Your task to perform on an android device: star an email in the gmail app Image 0: 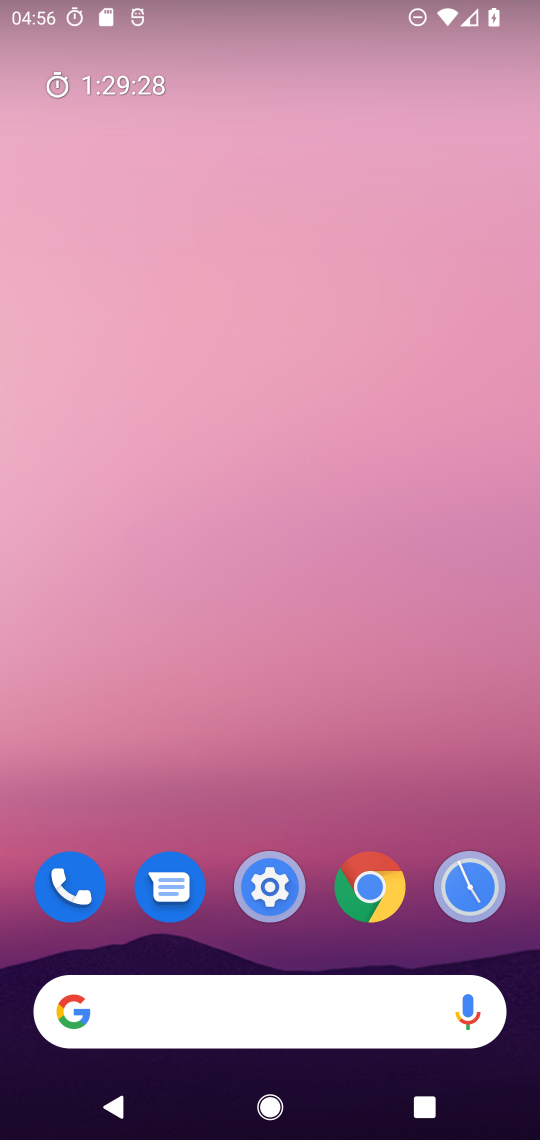
Step 0: press home button
Your task to perform on an android device: star an email in the gmail app Image 1: 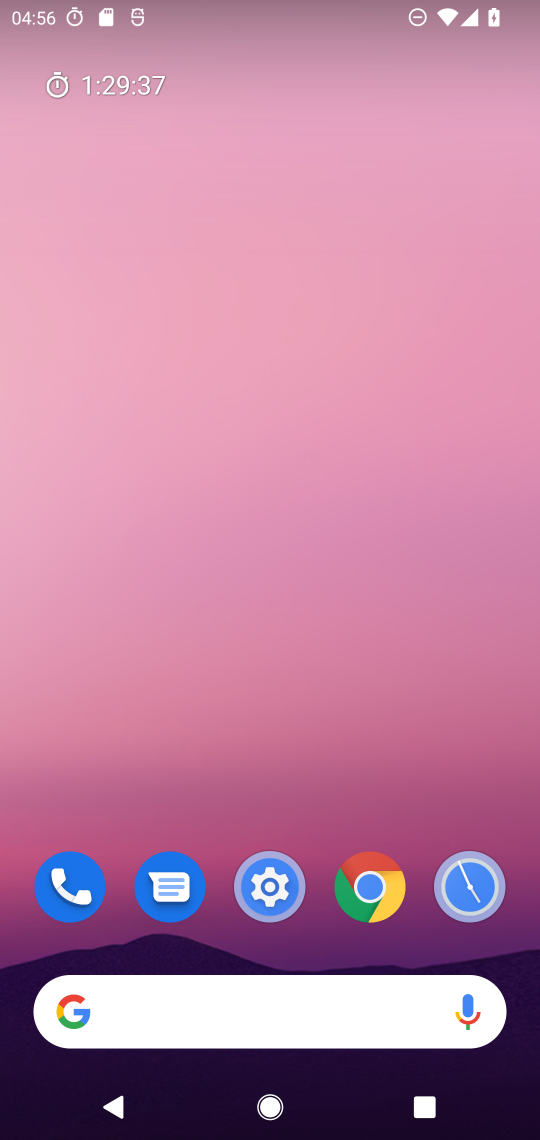
Step 1: drag from (327, 734) to (380, 181)
Your task to perform on an android device: star an email in the gmail app Image 2: 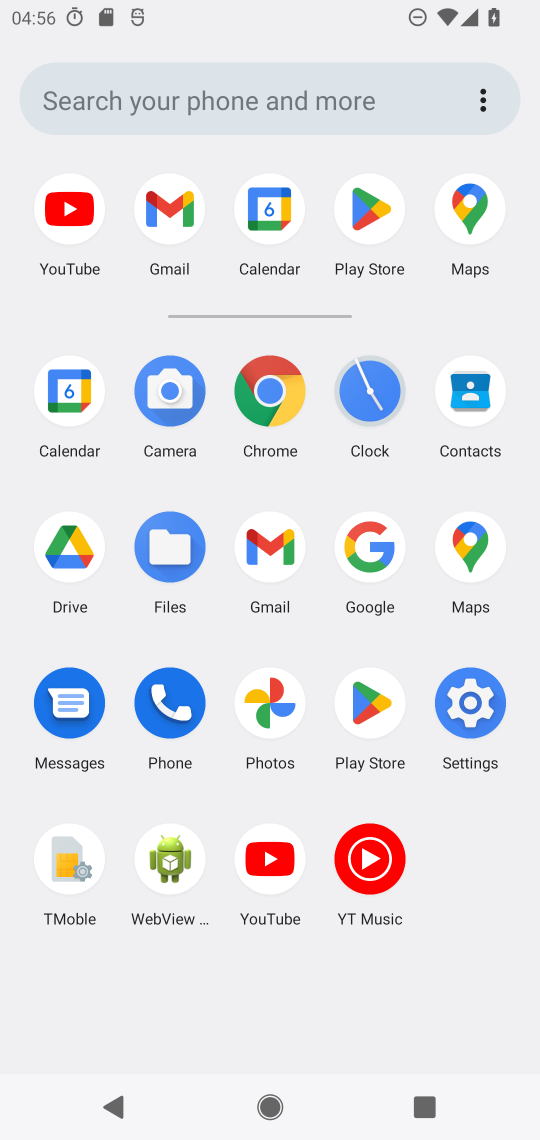
Step 2: click (271, 542)
Your task to perform on an android device: star an email in the gmail app Image 3: 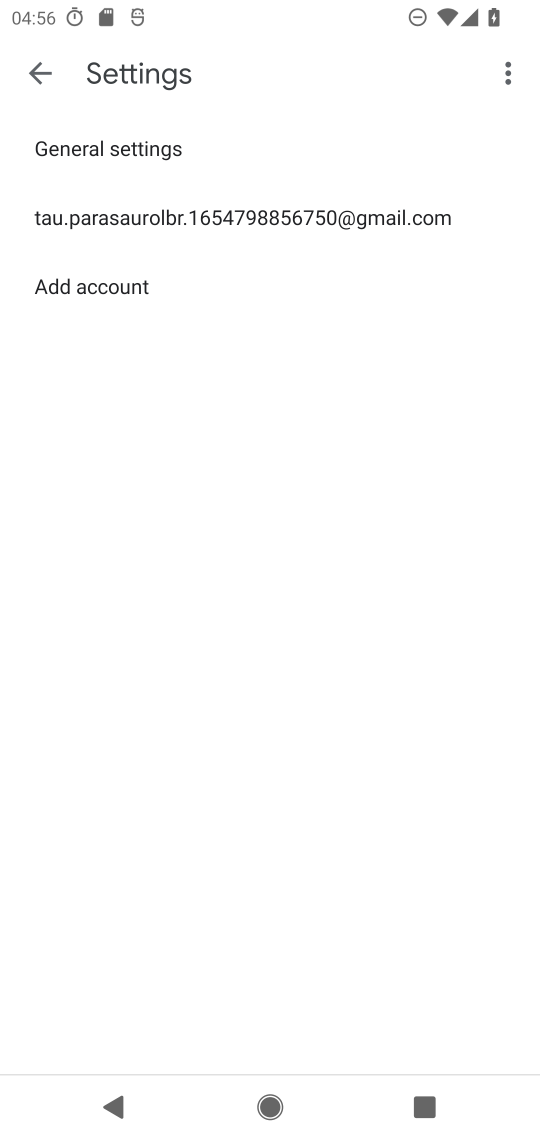
Step 3: press back button
Your task to perform on an android device: star an email in the gmail app Image 4: 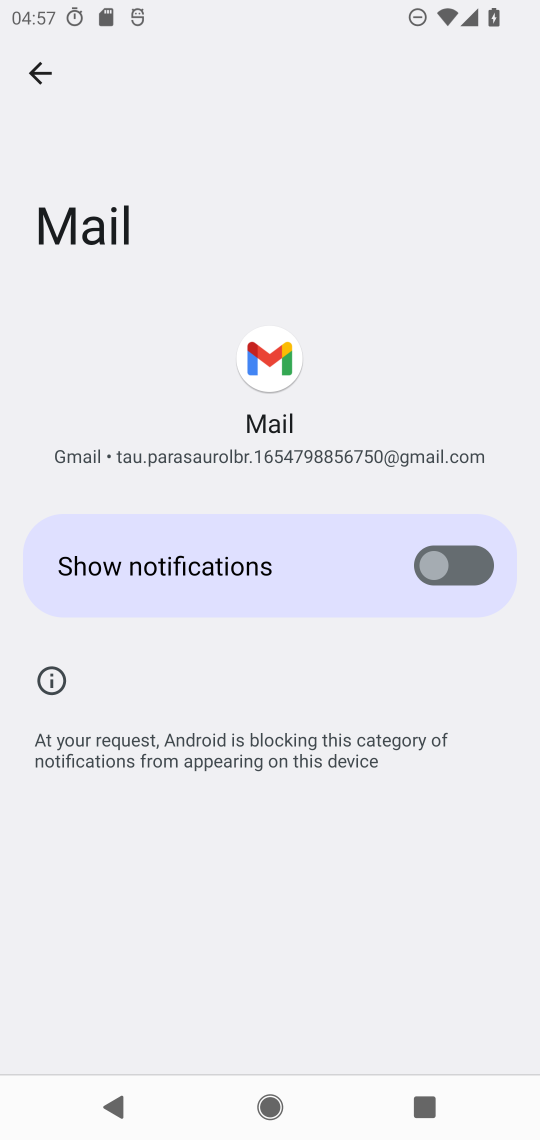
Step 4: press back button
Your task to perform on an android device: star an email in the gmail app Image 5: 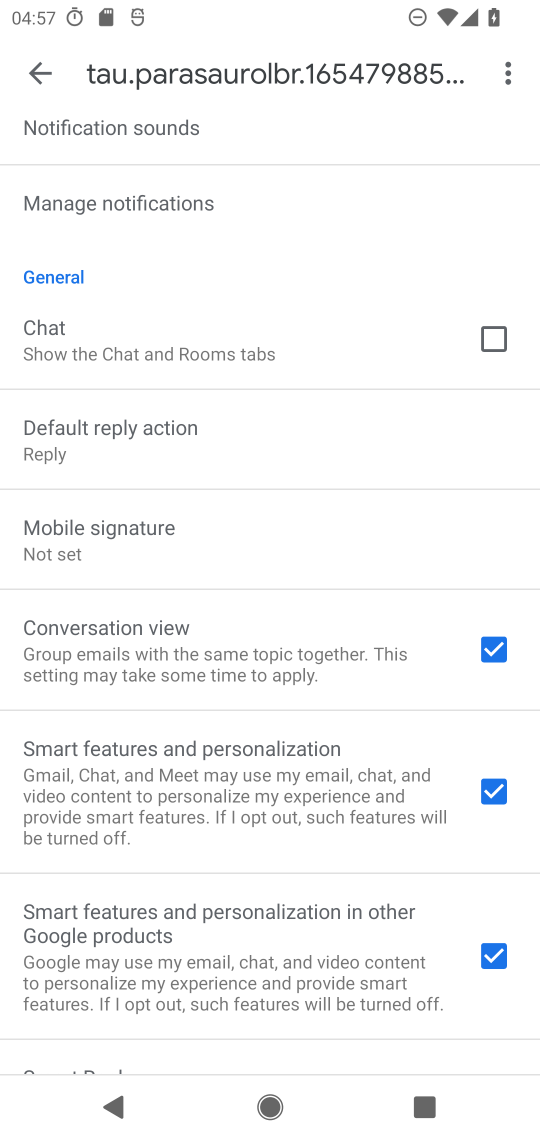
Step 5: press back button
Your task to perform on an android device: star an email in the gmail app Image 6: 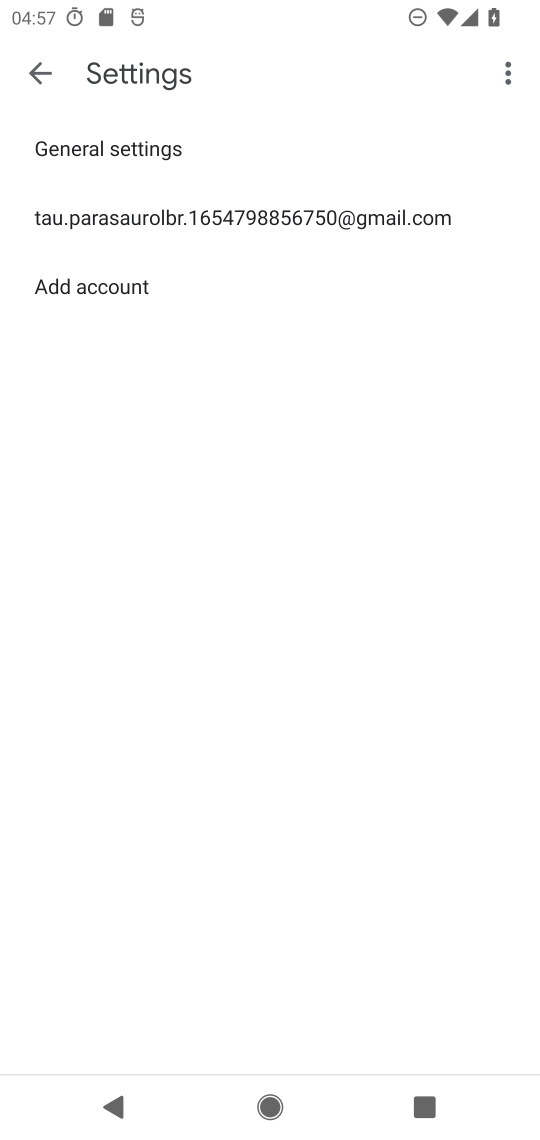
Step 6: press back button
Your task to perform on an android device: star an email in the gmail app Image 7: 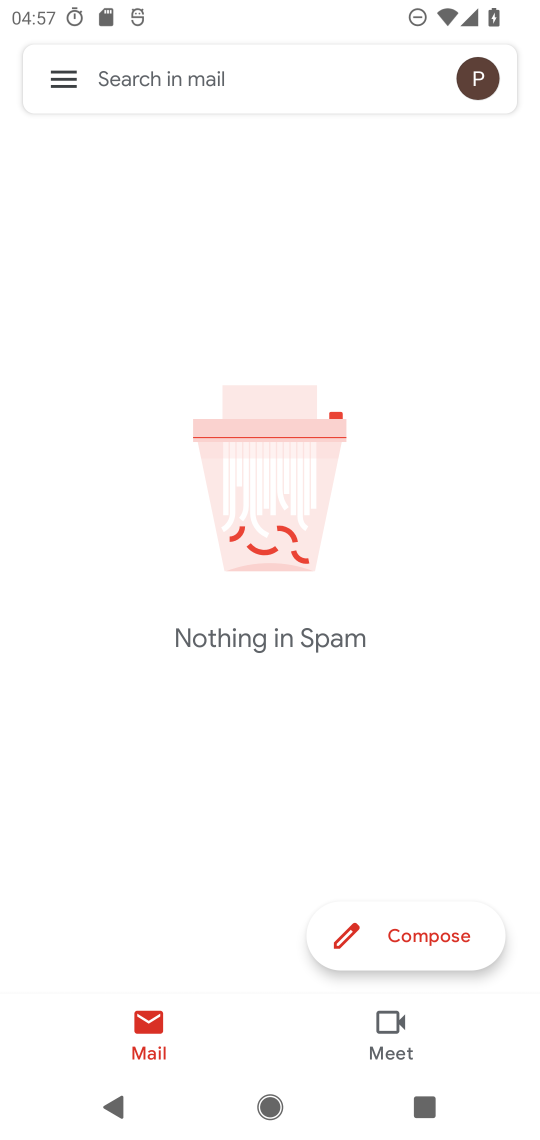
Step 7: click (64, 79)
Your task to perform on an android device: star an email in the gmail app Image 8: 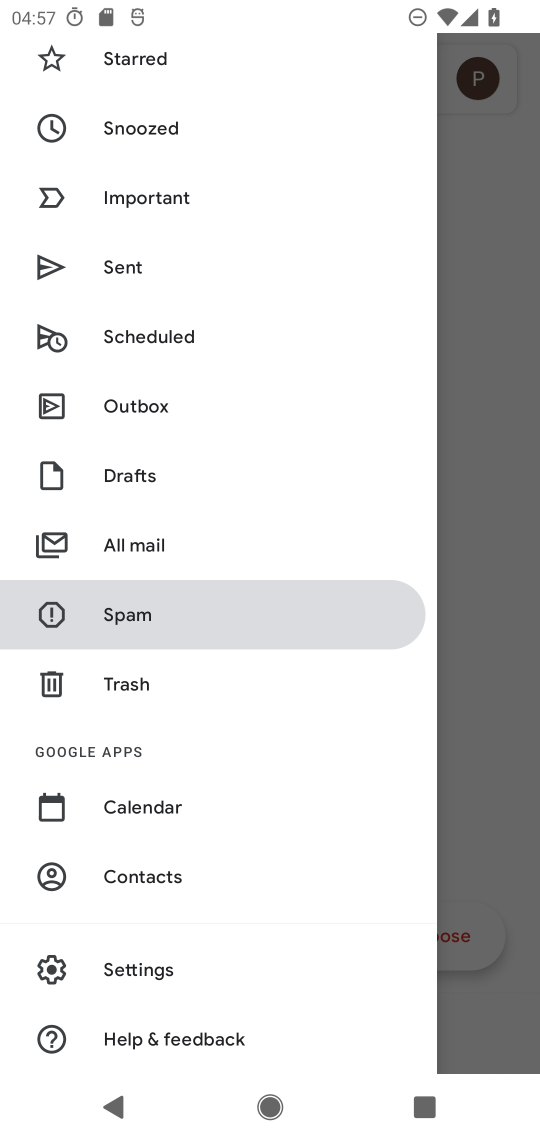
Step 8: click (157, 545)
Your task to perform on an android device: star an email in the gmail app Image 9: 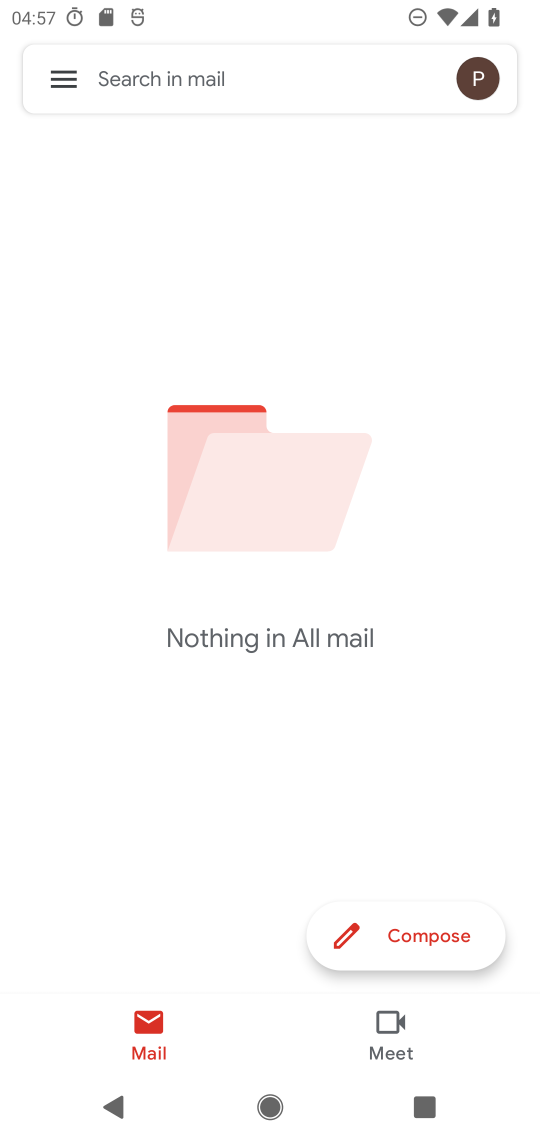
Step 9: task complete